Your task to perform on an android device: set the stopwatch Image 0: 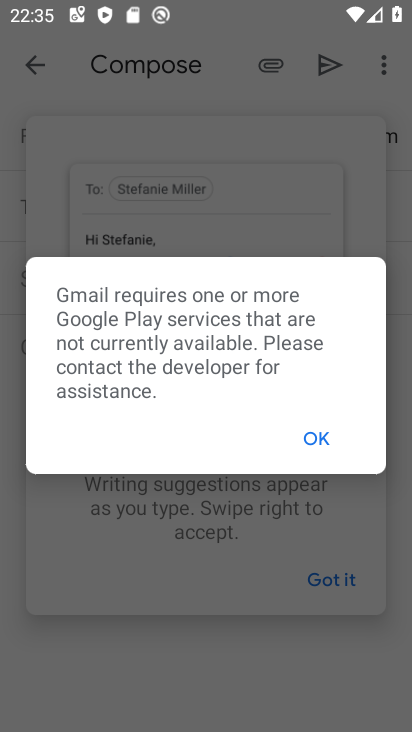
Step 0: press home button
Your task to perform on an android device: set the stopwatch Image 1: 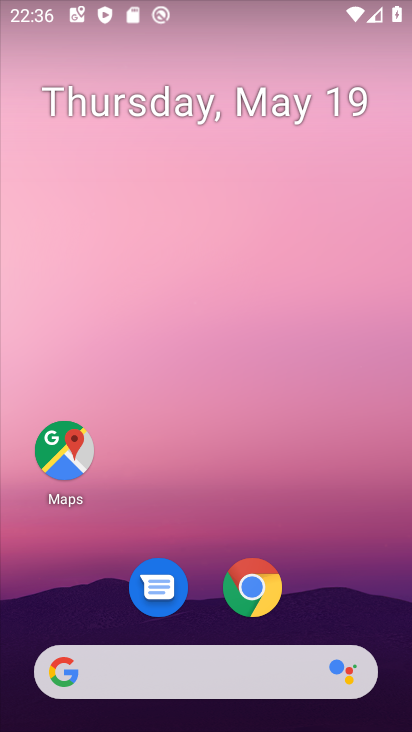
Step 1: drag from (255, 696) to (381, 203)
Your task to perform on an android device: set the stopwatch Image 2: 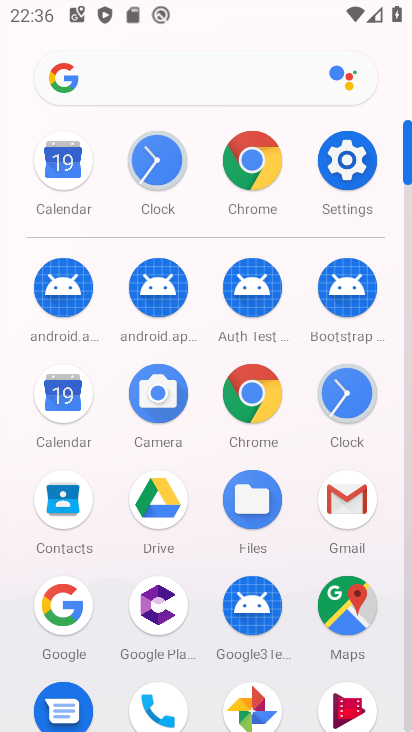
Step 2: click (329, 400)
Your task to perform on an android device: set the stopwatch Image 3: 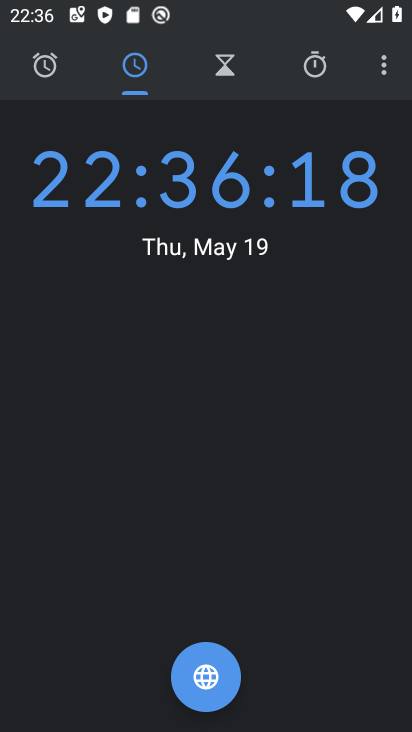
Step 3: click (321, 81)
Your task to perform on an android device: set the stopwatch Image 4: 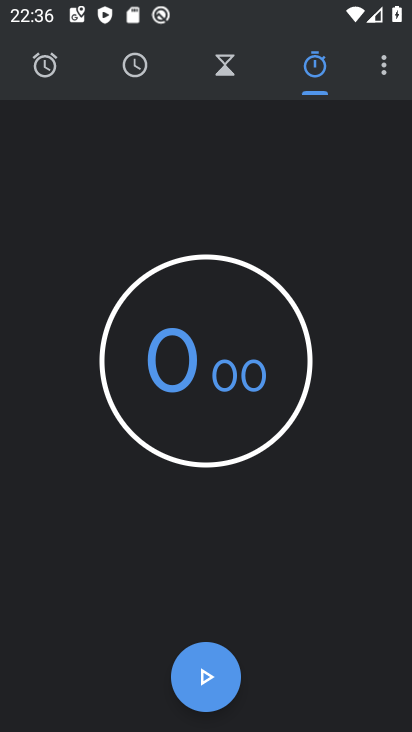
Step 4: task complete